Your task to perform on an android device: Open settings Image 0: 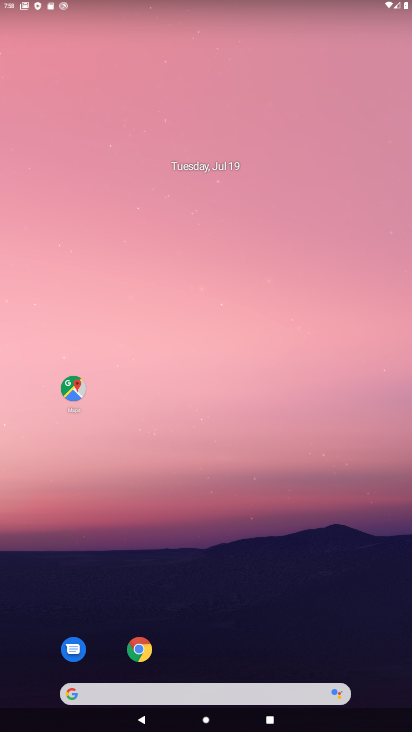
Step 0: drag from (212, 652) to (193, 135)
Your task to perform on an android device: Open settings Image 1: 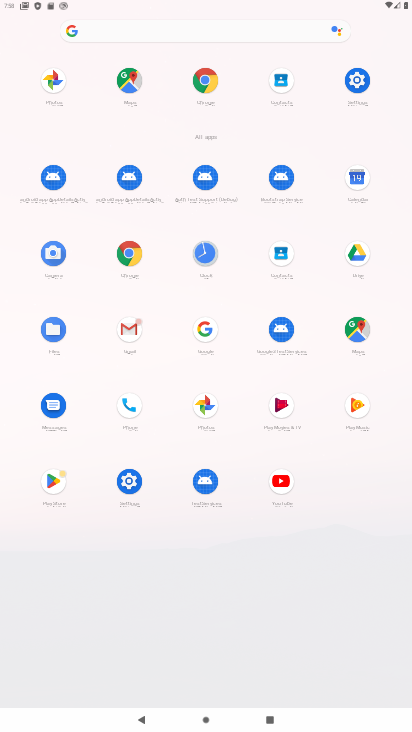
Step 1: click (357, 70)
Your task to perform on an android device: Open settings Image 2: 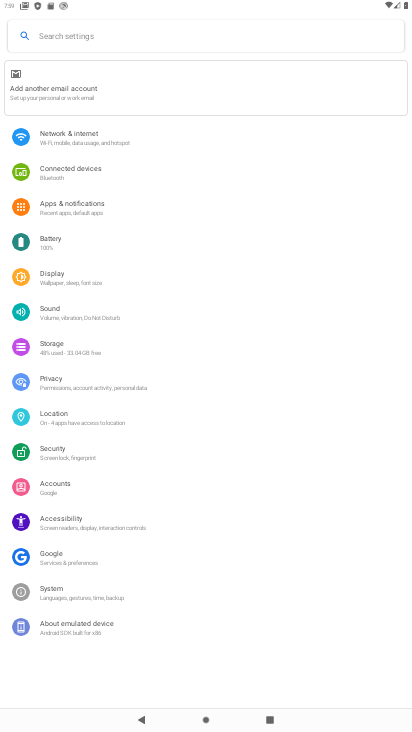
Step 2: task complete